Your task to perform on an android device: turn off location Image 0: 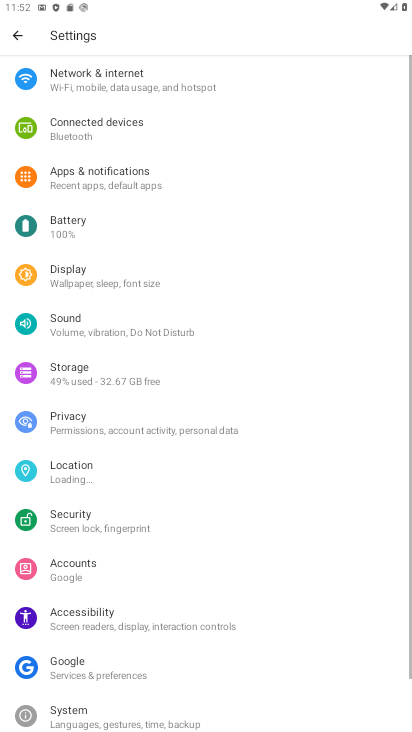
Step 0: drag from (224, 259) to (227, 113)
Your task to perform on an android device: turn off location Image 1: 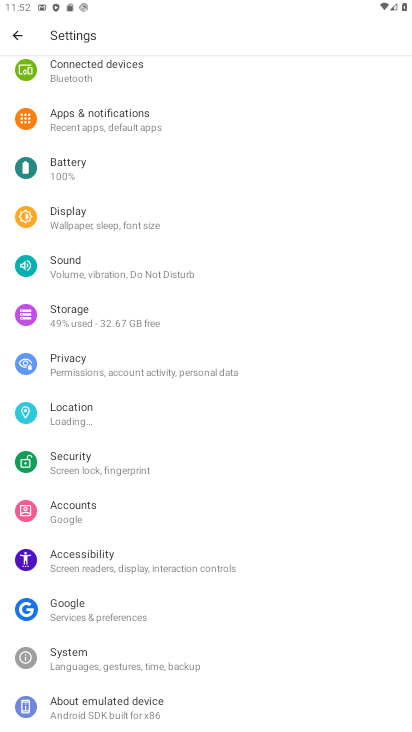
Step 1: press home button
Your task to perform on an android device: turn off location Image 2: 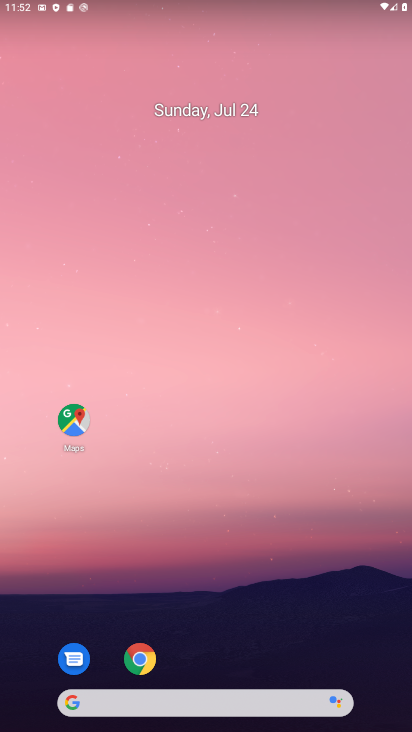
Step 2: drag from (243, 666) to (234, 205)
Your task to perform on an android device: turn off location Image 3: 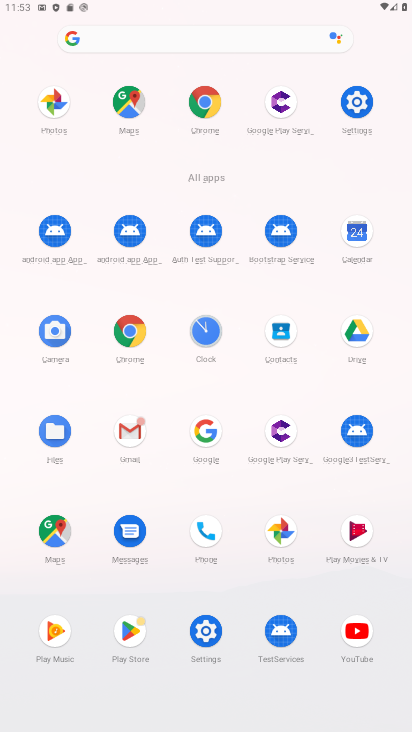
Step 3: click (208, 620)
Your task to perform on an android device: turn off location Image 4: 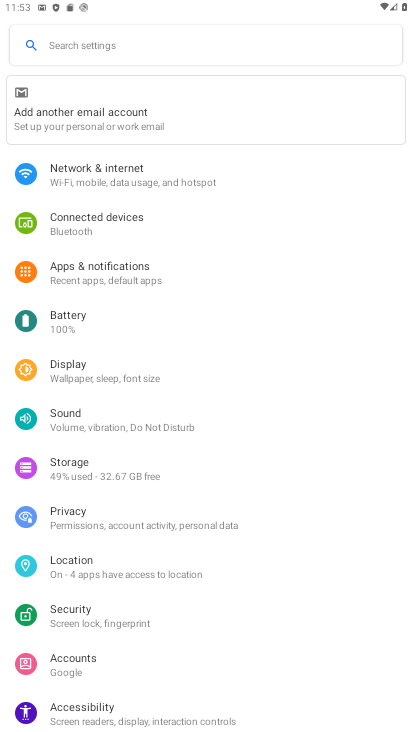
Step 4: click (97, 561)
Your task to perform on an android device: turn off location Image 5: 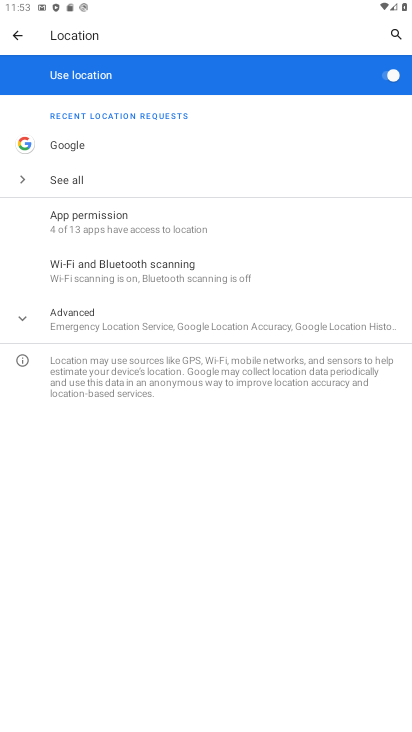
Step 5: click (28, 314)
Your task to perform on an android device: turn off location Image 6: 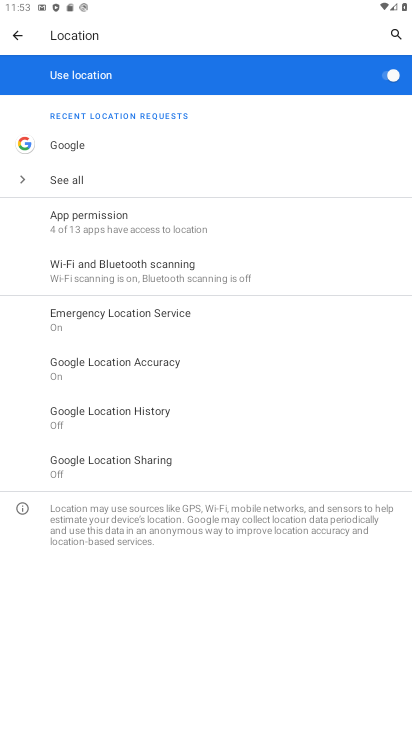
Step 6: click (382, 77)
Your task to perform on an android device: turn off location Image 7: 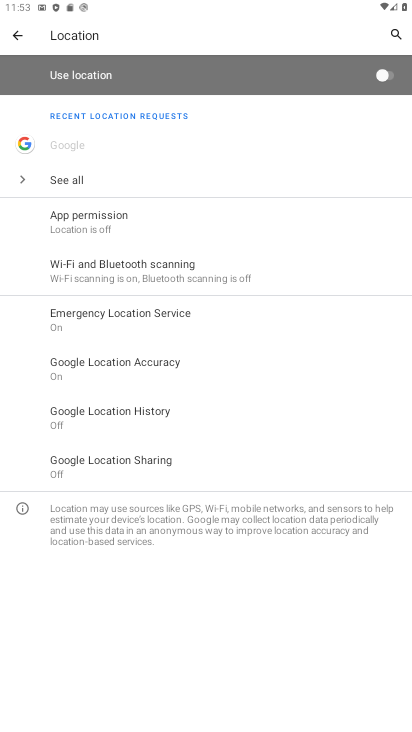
Step 7: task complete